Your task to perform on an android device: add a contact in the contacts app Image 0: 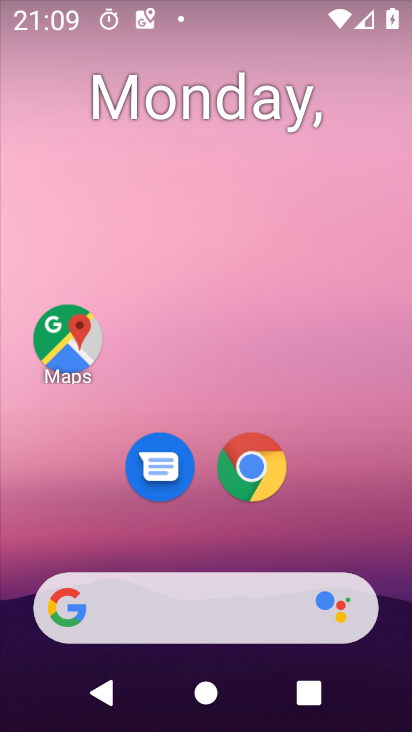
Step 0: drag from (220, 524) to (266, 90)
Your task to perform on an android device: add a contact in the contacts app Image 1: 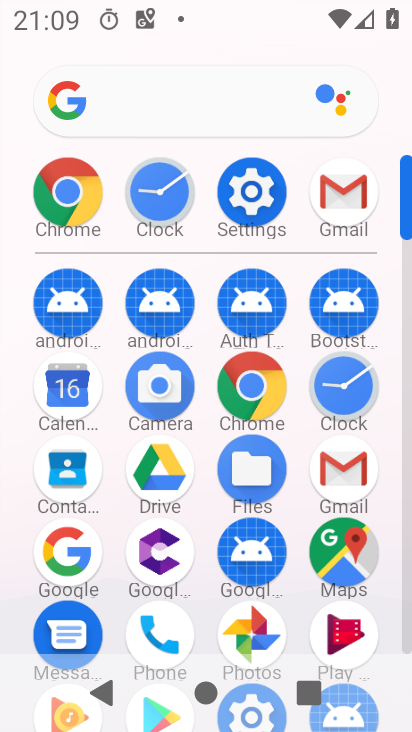
Step 1: click (74, 480)
Your task to perform on an android device: add a contact in the contacts app Image 2: 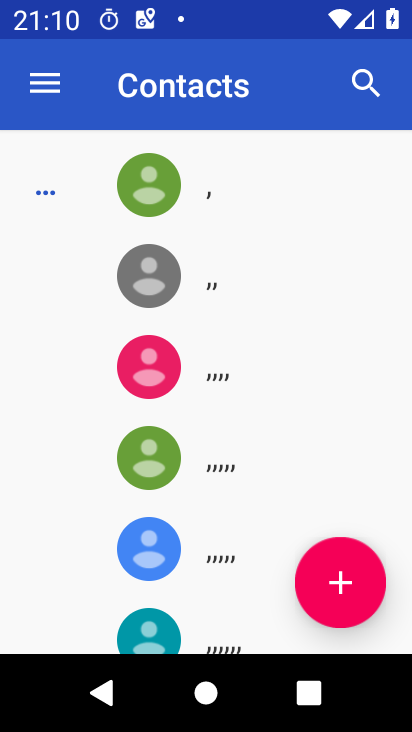
Step 2: click (354, 595)
Your task to perform on an android device: add a contact in the contacts app Image 3: 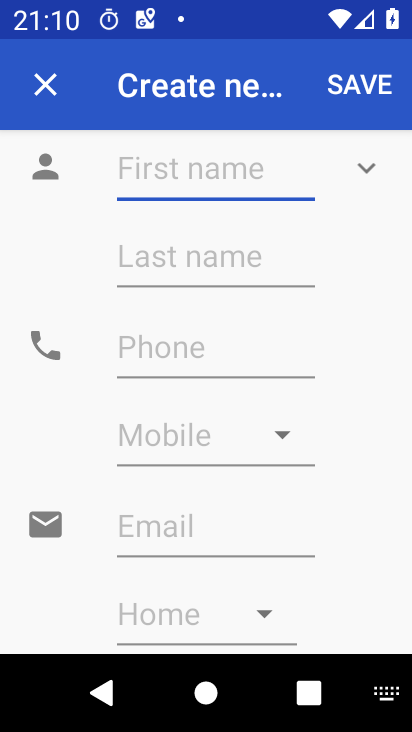
Step 3: type "nbjh"
Your task to perform on an android device: add a contact in the contacts app Image 4: 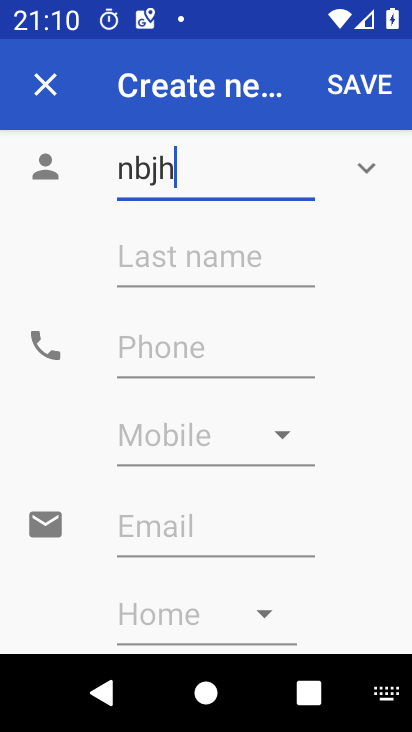
Step 4: click (158, 350)
Your task to perform on an android device: add a contact in the contacts app Image 5: 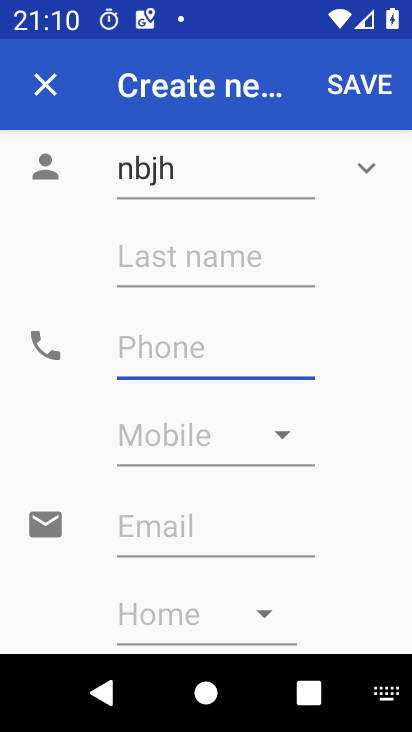
Step 5: type "567"
Your task to perform on an android device: add a contact in the contacts app Image 6: 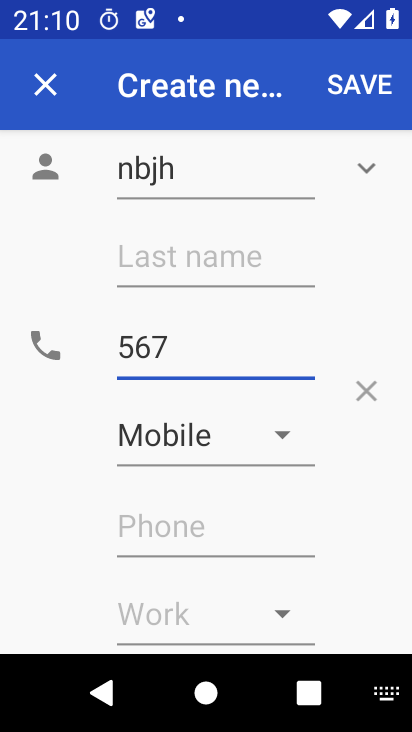
Step 6: click (367, 96)
Your task to perform on an android device: add a contact in the contacts app Image 7: 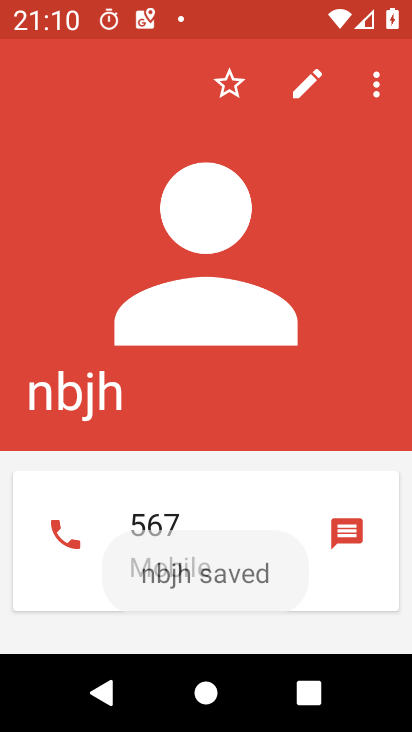
Step 7: task complete